Your task to perform on an android device: Go to eBay Image 0: 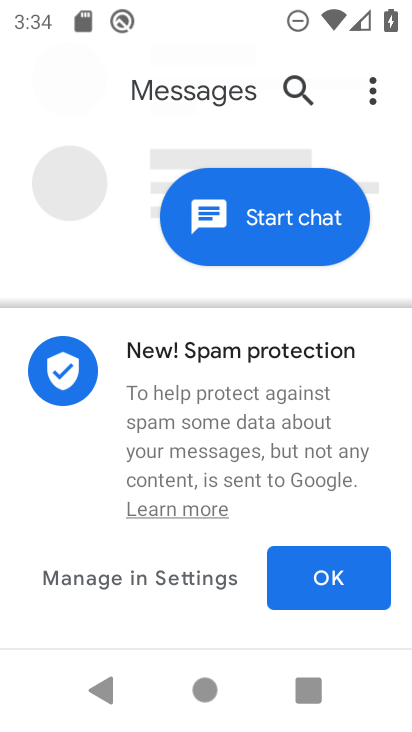
Step 0: press home button
Your task to perform on an android device: Go to eBay Image 1: 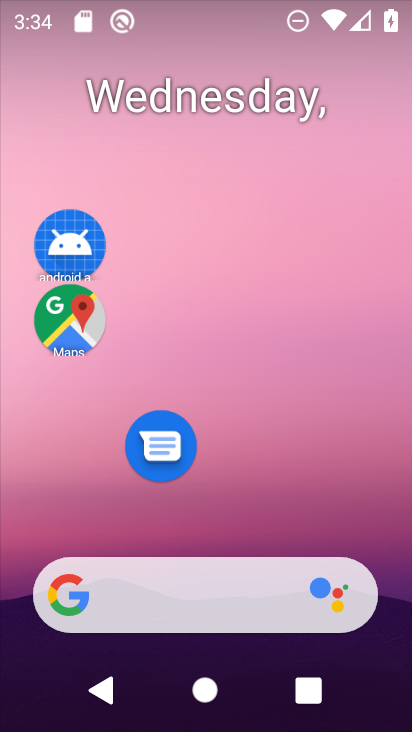
Step 1: drag from (284, 500) to (325, 64)
Your task to perform on an android device: Go to eBay Image 2: 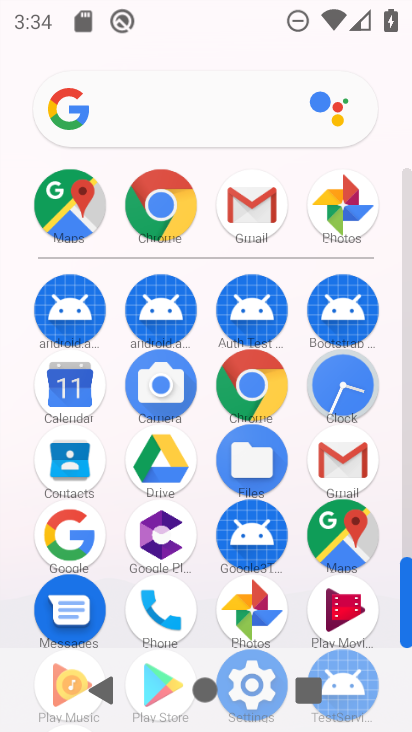
Step 2: click (170, 201)
Your task to perform on an android device: Go to eBay Image 3: 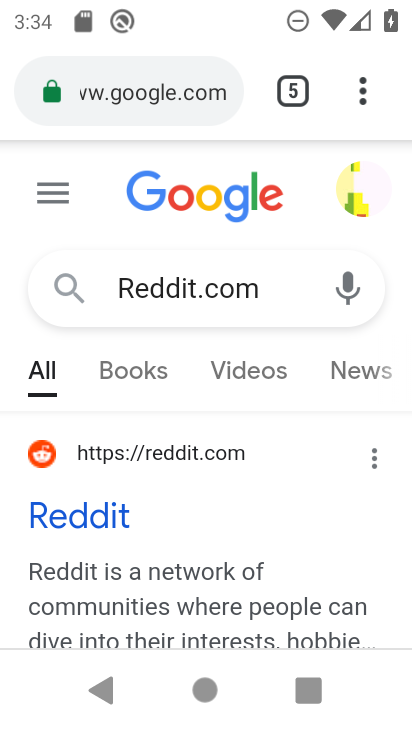
Step 3: click (123, 104)
Your task to perform on an android device: Go to eBay Image 4: 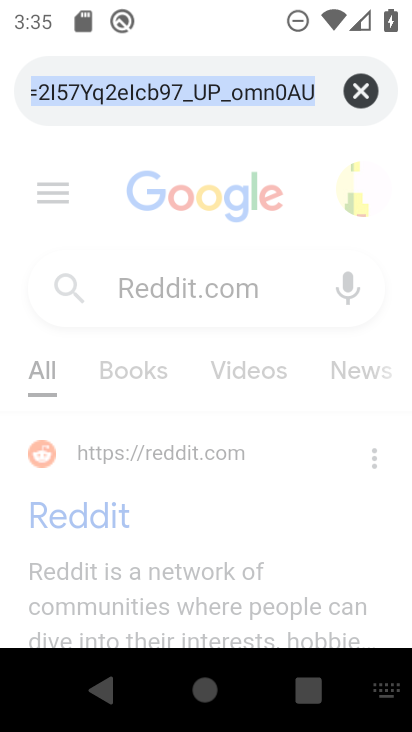
Step 4: type "ebay.com"
Your task to perform on an android device: Go to eBay Image 5: 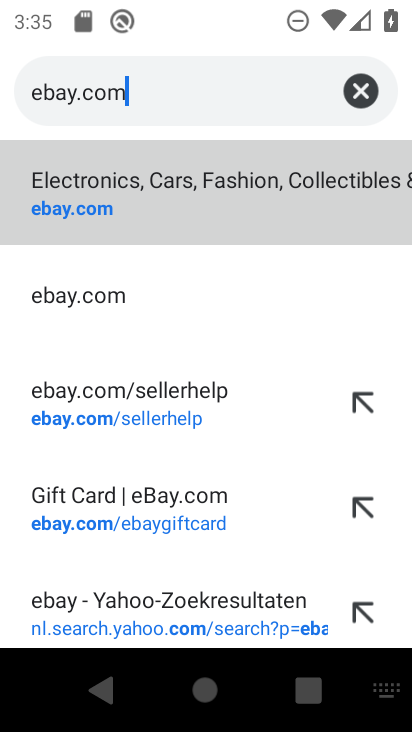
Step 5: click (280, 390)
Your task to perform on an android device: Go to eBay Image 6: 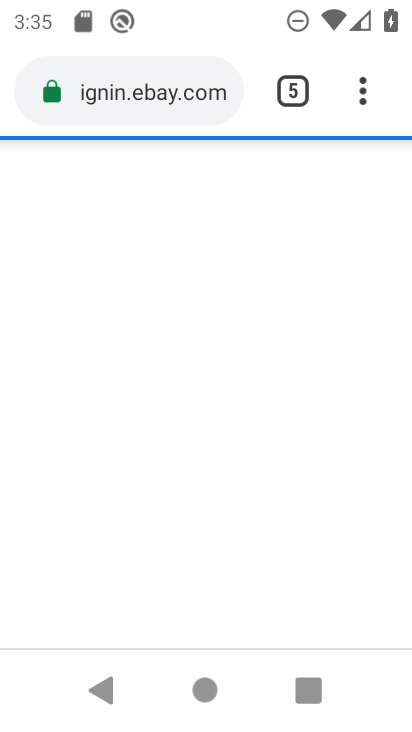
Step 6: task complete